Your task to perform on an android device: toggle sleep mode Image 0: 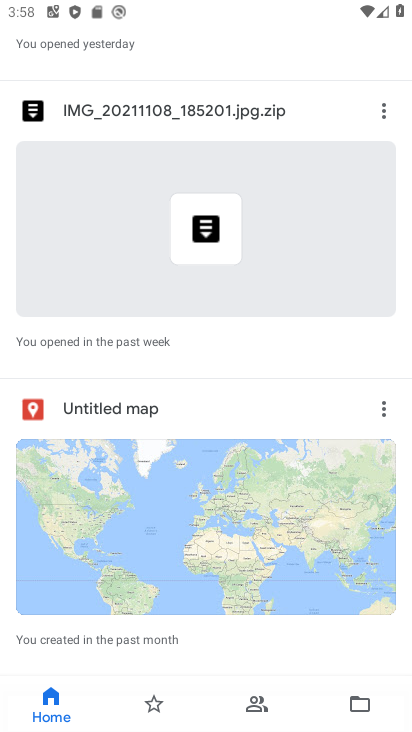
Step 0: press home button
Your task to perform on an android device: toggle sleep mode Image 1: 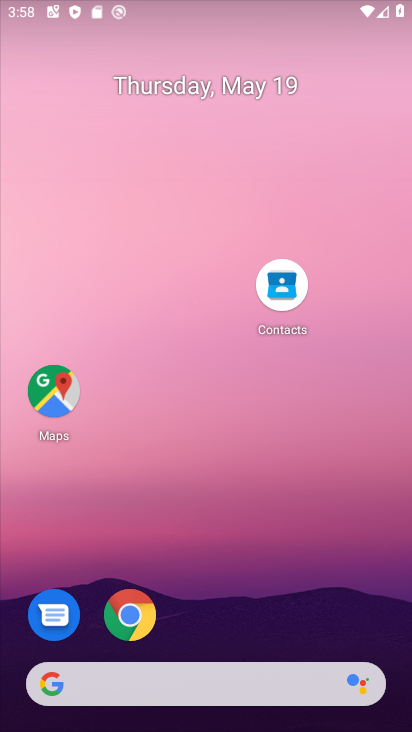
Step 1: drag from (223, 688) to (276, 91)
Your task to perform on an android device: toggle sleep mode Image 2: 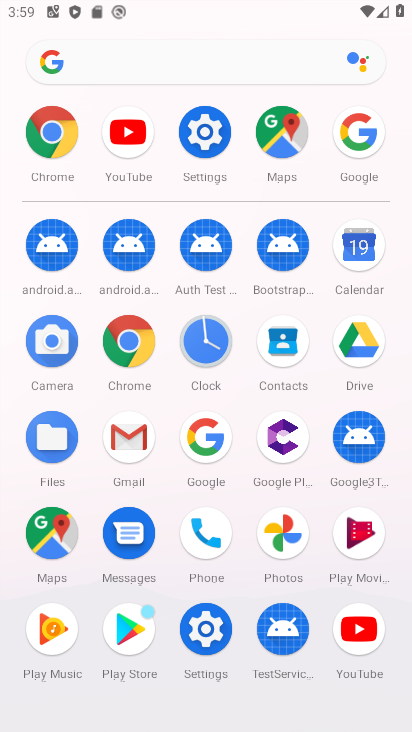
Step 2: click (198, 165)
Your task to perform on an android device: toggle sleep mode Image 3: 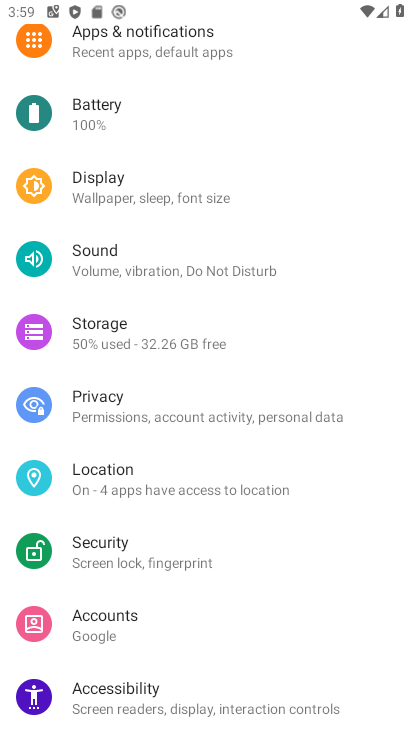
Step 3: drag from (182, 385) to (197, 685)
Your task to perform on an android device: toggle sleep mode Image 4: 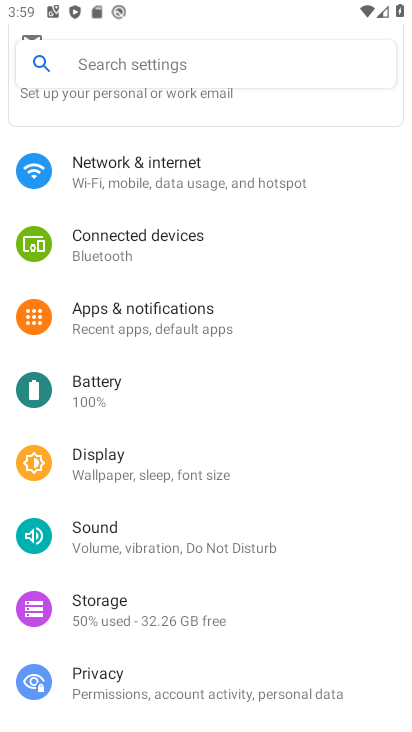
Step 4: drag from (158, 588) to (177, 395)
Your task to perform on an android device: toggle sleep mode Image 5: 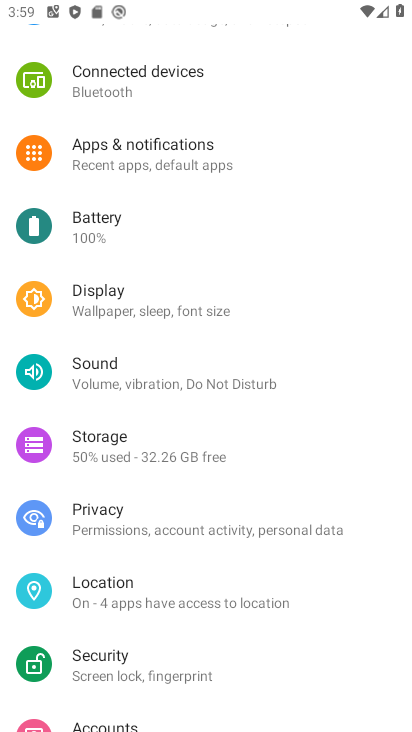
Step 5: click (159, 314)
Your task to perform on an android device: toggle sleep mode Image 6: 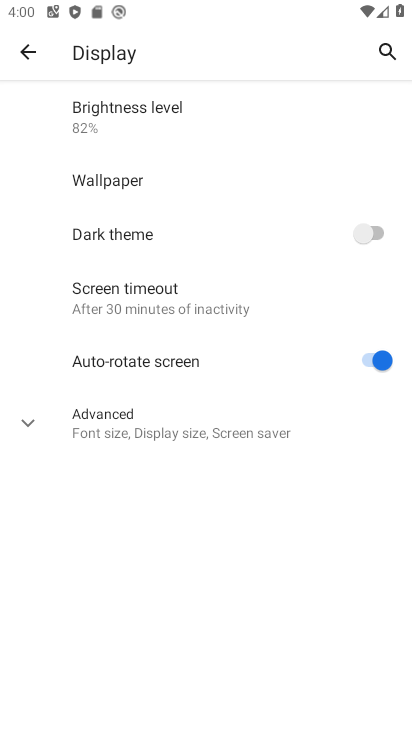
Step 6: click (191, 427)
Your task to perform on an android device: toggle sleep mode Image 7: 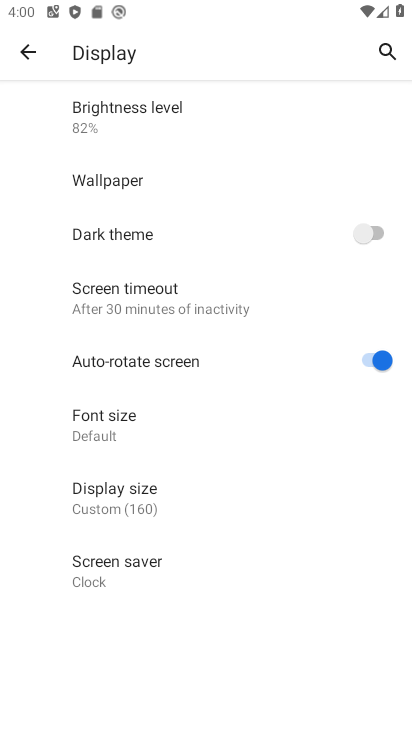
Step 7: task complete